Your task to perform on an android device: refresh tabs in the chrome app Image 0: 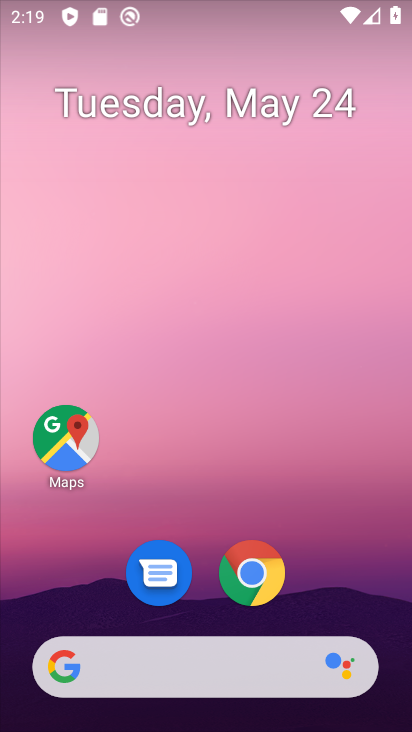
Step 0: drag from (331, 572) to (259, 52)
Your task to perform on an android device: refresh tabs in the chrome app Image 1: 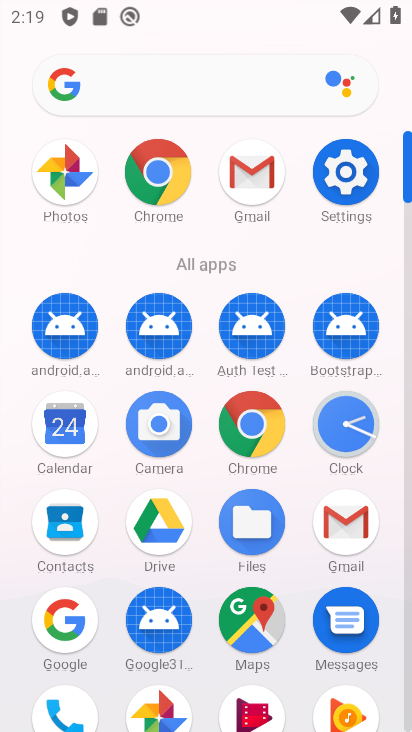
Step 1: drag from (20, 551) to (23, 232)
Your task to perform on an android device: refresh tabs in the chrome app Image 2: 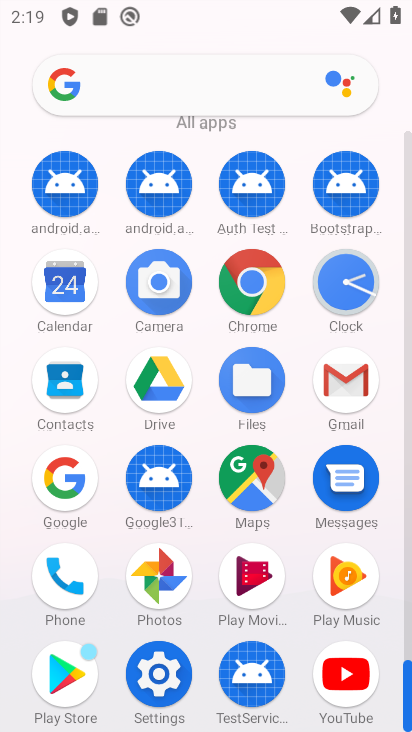
Step 2: click (245, 281)
Your task to perform on an android device: refresh tabs in the chrome app Image 3: 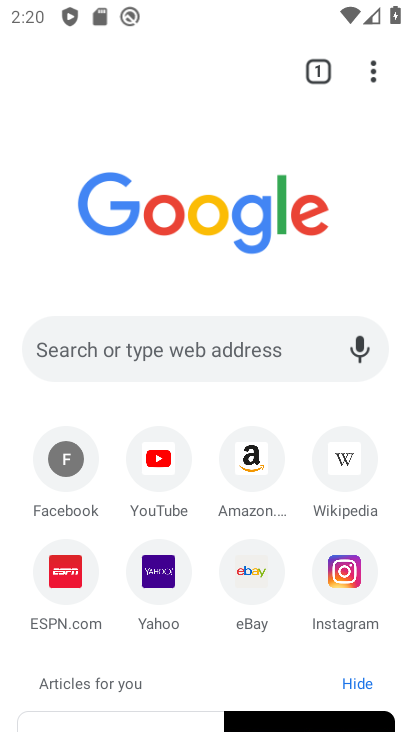
Step 3: click (369, 73)
Your task to perform on an android device: refresh tabs in the chrome app Image 4: 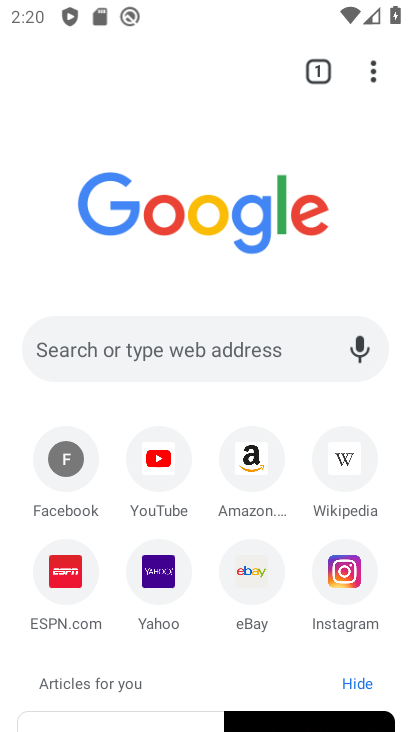
Step 4: click (369, 79)
Your task to perform on an android device: refresh tabs in the chrome app Image 5: 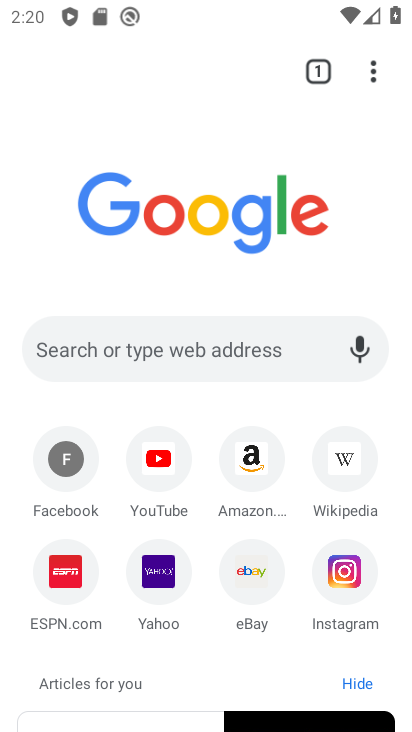
Step 5: task complete